Your task to perform on an android device: turn on data saver in the chrome app Image 0: 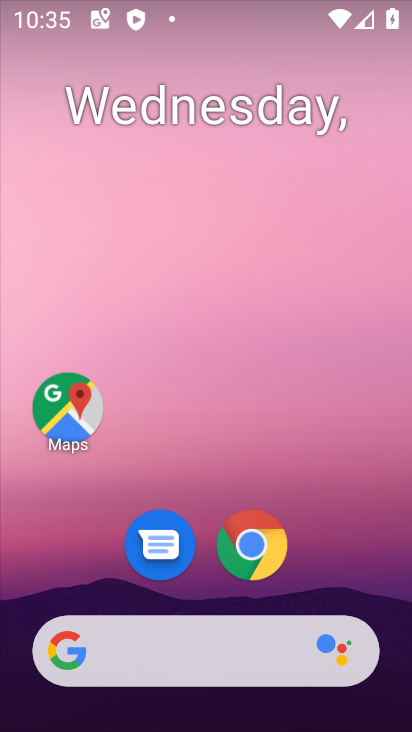
Step 0: click (238, 556)
Your task to perform on an android device: turn on data saver in the chrome app Image 1: 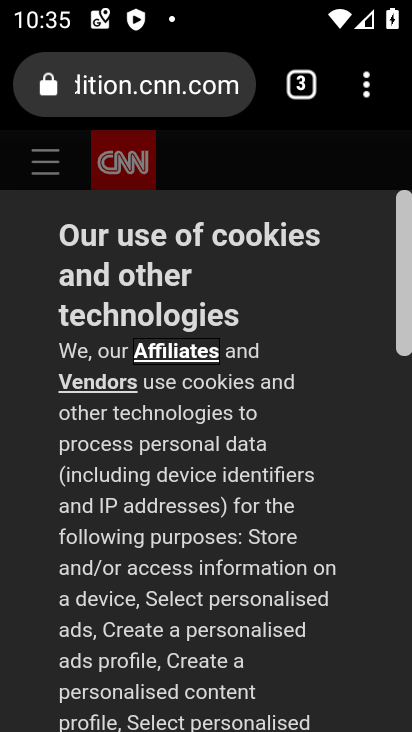
Step 1: click (359, 90)
Your task to perform on an android device: turn on data saver in the chrome app Image 2: 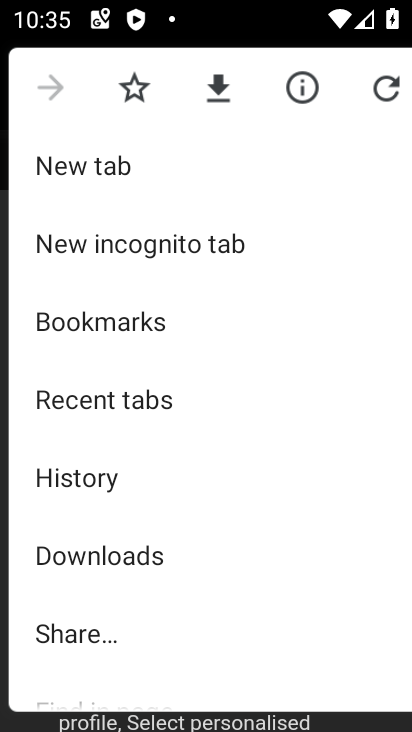
Step 2: drag from (167, 594) to (217, 284)
Your task to perform on an android device: turn on data saver in the chrome app Image 3: 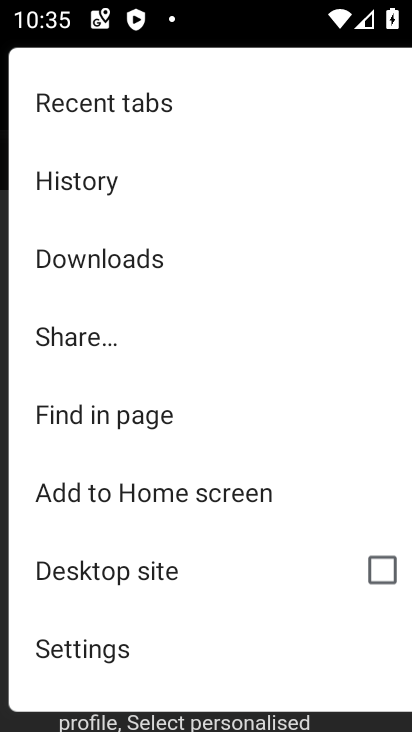
Step 3: drag from (168, 616) to (202, 325)
Your task to perform on an android device: turn on data saver in the chrome app Image 4: 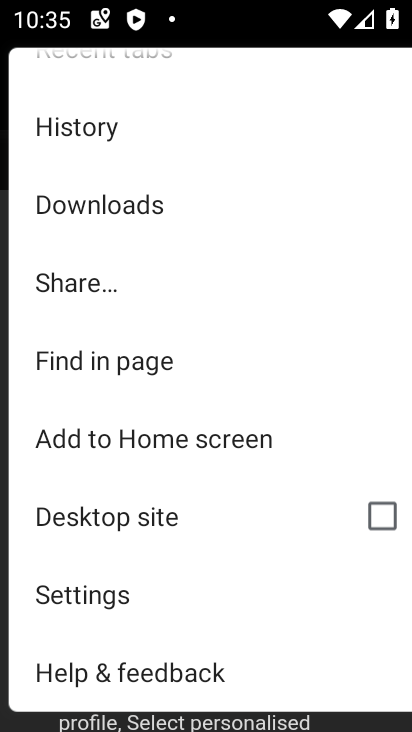
Step 4: click (146, 593)
Your task to perform on an android device: turn on data saver in the chrome app Image 5: 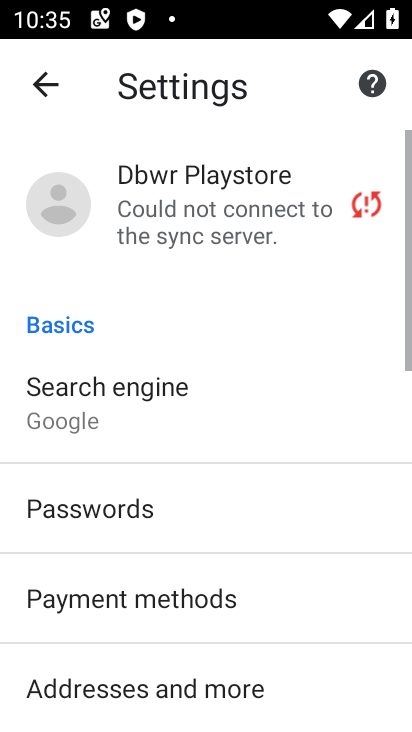
Step 5: drag from (157, 594) to (216, 255)
Your task to perform on an android device: turn on data saver in the chrome app Image 6: 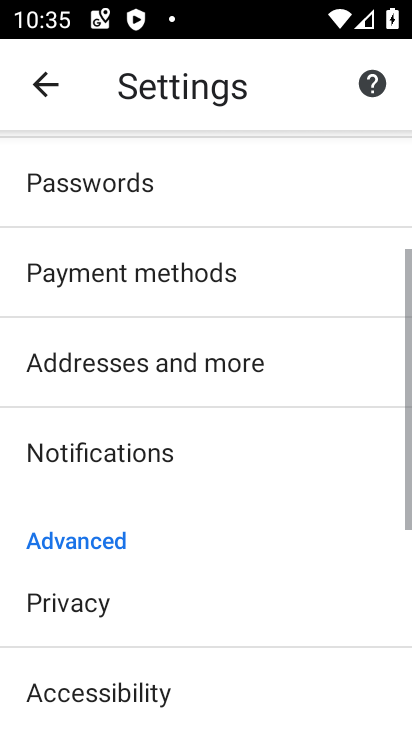
Step 6: drag from (217, 573) to (224, 284)
Your task to perform on an android device: turn on data saver in the chrome app Image 7: 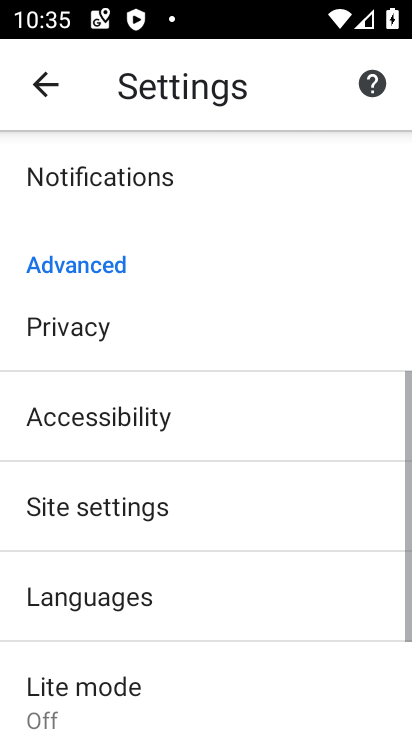
Step 7: click (225, 373)
Your task to perform on an android device: turn on data saver in the chrome app Image 8: 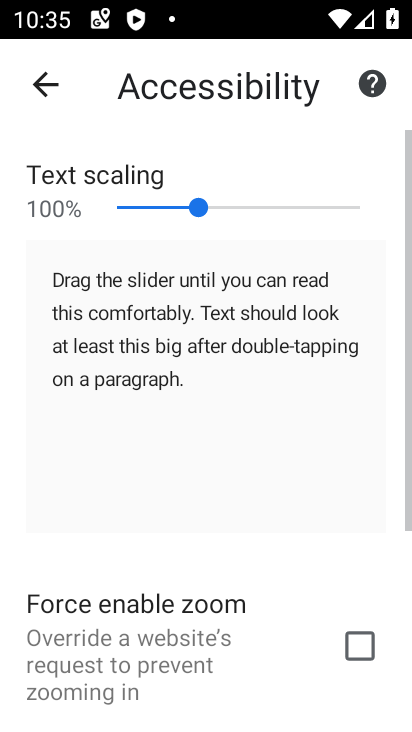
Step 8: click (30, 65)
Your task to perform on an android device: turn on data saver in the chrome app Image 9: 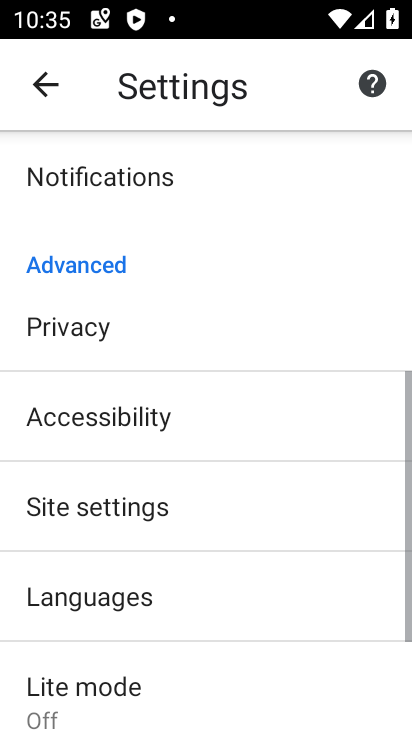
Step 9: drag from (212, 625) to (268, 338)
Your task to perform on an android device: turn on data saver in the chrome app Image 10: 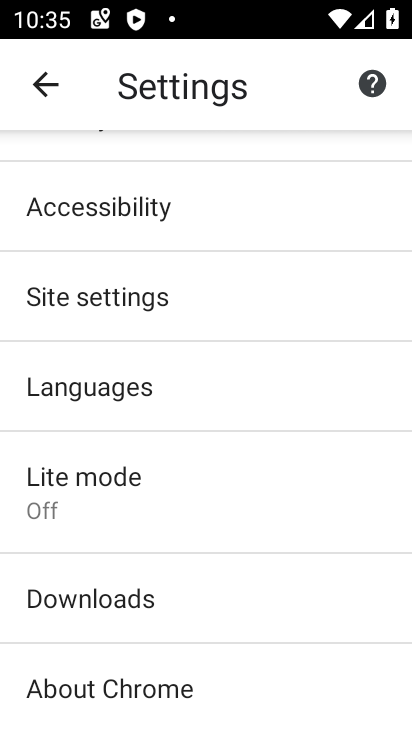
Step 10: drag from (210, 615) to (225, 391)
Your task to perform on an android device: turn on data saver in the chrome app Image 11: 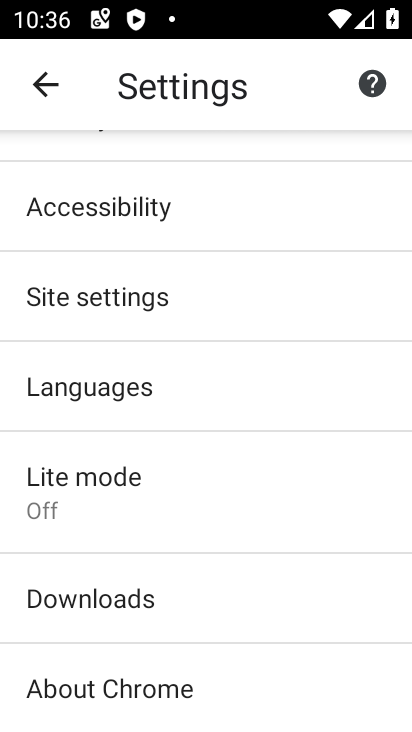
Step 11: drag from (226, 607) to (240, 380)
Your task to perform on an android device: turn on data saver in the chrome app Image 12: 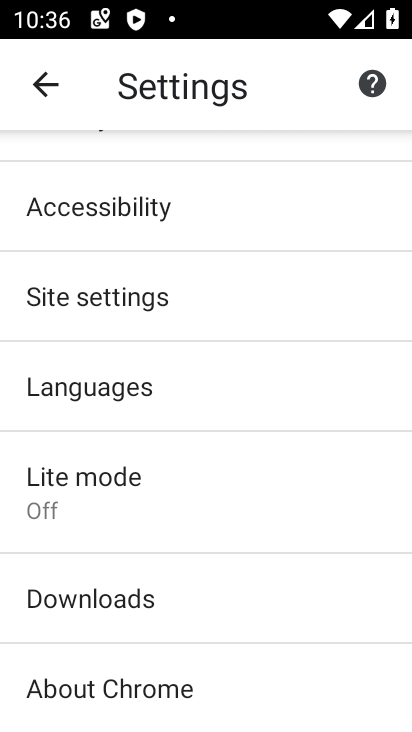
Step 12: click (179, 519)
Your task to perform on an android device: turn on data saver in the chrome app Image 13: 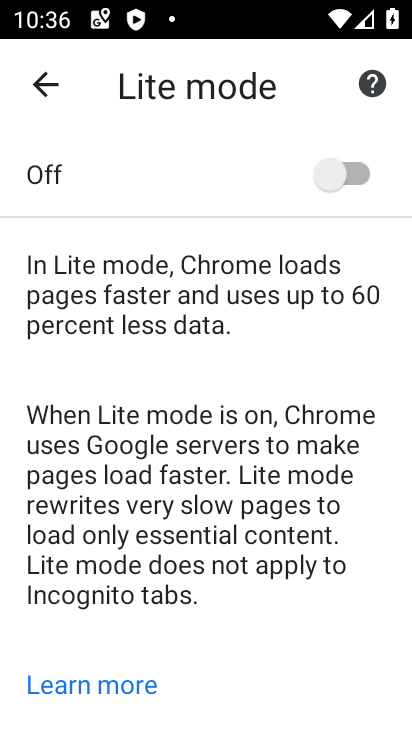
Step 13: click (358, 170)
Your task to perform on an android device: turn on data saver in the chrome app Image 14: 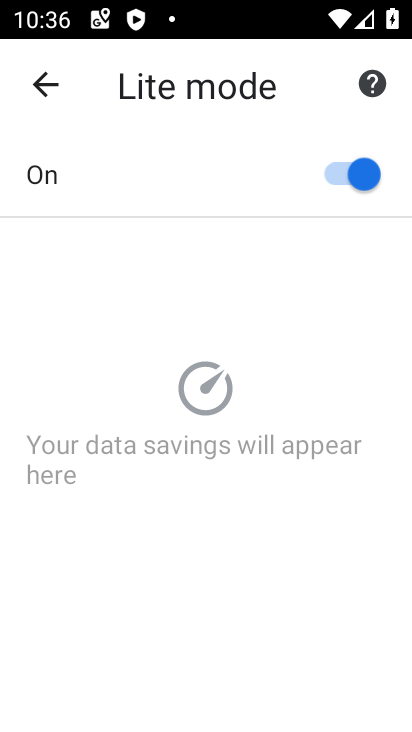
Step 14: task complete